Your task to perform on an android device: Search for vegetarian restaurants on Maps Image 0: 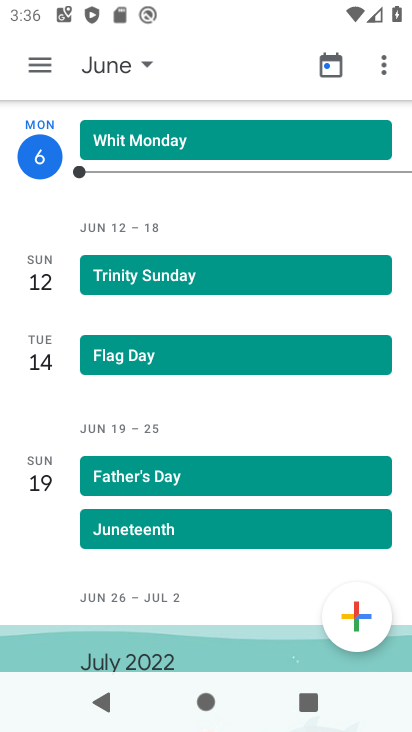
Step 0: press home button
Your task to perform on an android device: Search for vegetarian restaurants on Maps Image 1: 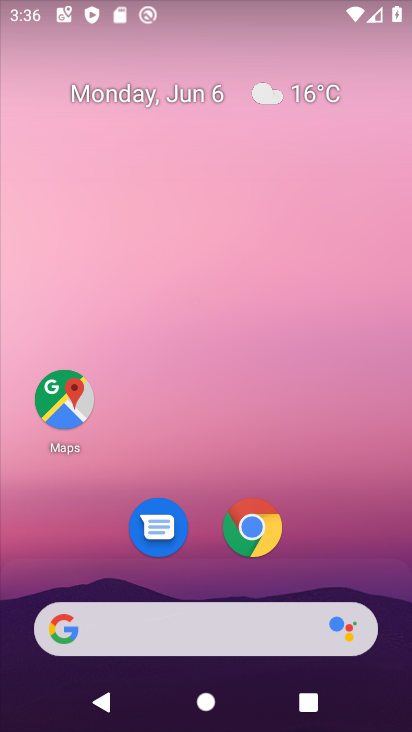
Step 1: click (45, 410)
Your task to perform on an android device: Search for vegetarian restaurants on Maps Image 2: 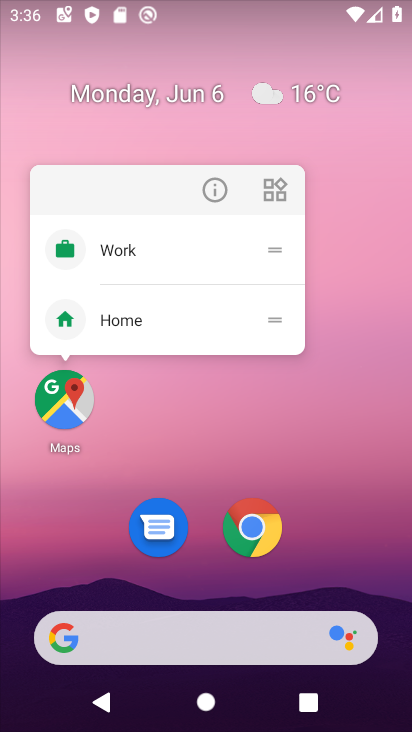
Step 2: click (48, 410)
Your task to perform on an android device: Search for vegetarian restaurants on Maps Image 3: 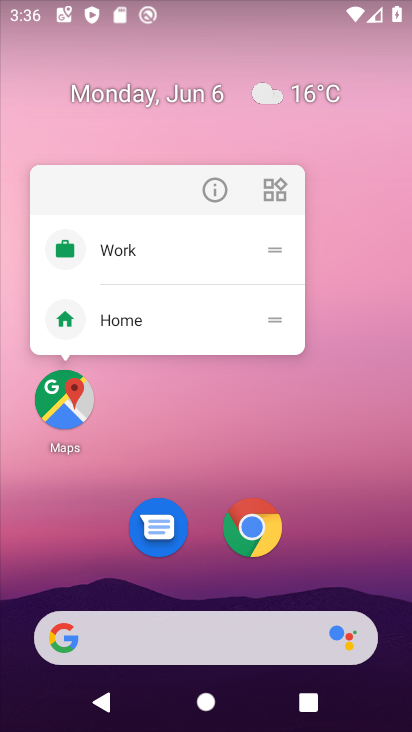
Step 3: click (57, 418)
Your task to perform on an android device: Search for vegetarian restaurants on Maps Image 4: 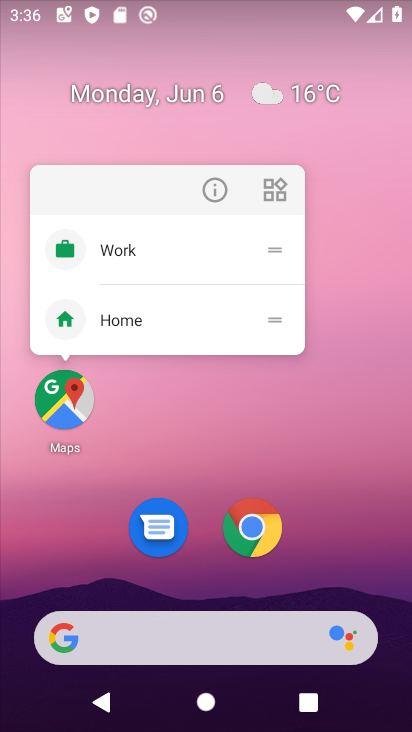
Step 4: click (65, 413)
Your task to perform on an android device: Search for vegetarian restaurants on Maps Image 5: 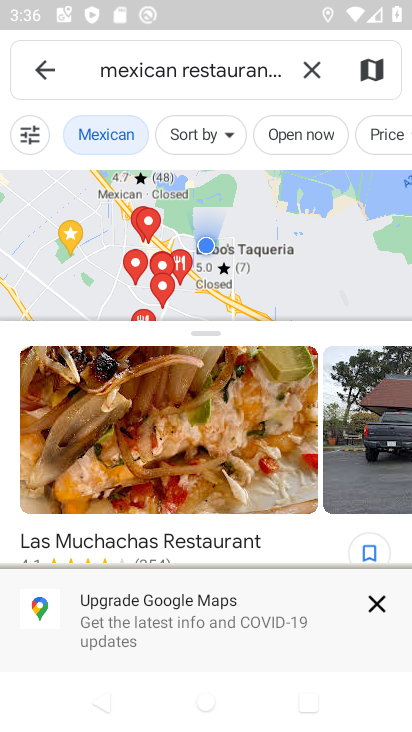
Step 5: click (316, 75)
Your task to perform on an android device: Search for vegetarian restaurants on Maps Image 6: 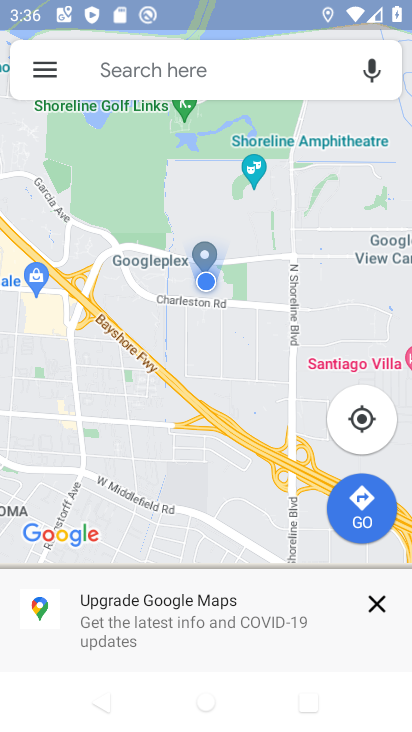
Step 6: click (217, 83)
Your task to perform on an android device: Search for vegetarian restaurants on Maps Image 7: 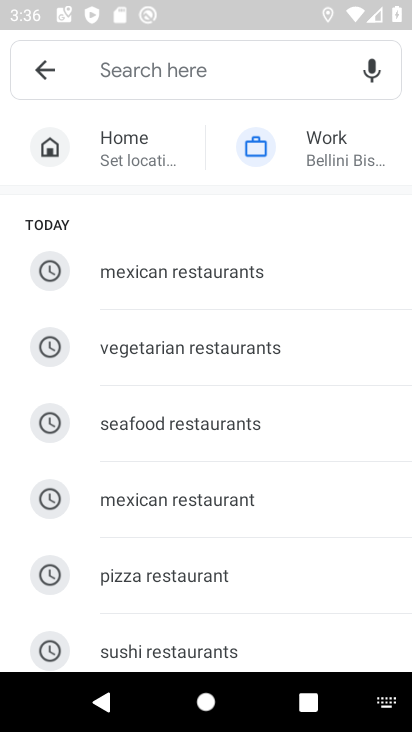
Step 7: type "Vegetarian restaurants"
Your task to perform on an android device: Search for vegetarian restaurants on Maps Image 8: 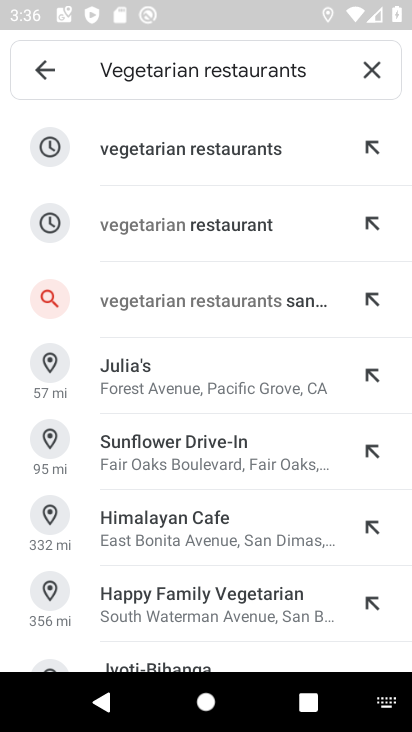
Step 8: click (211, 164)
Your task to perform on an android device: Search for vegetarian restaurants on Maps Image 9: 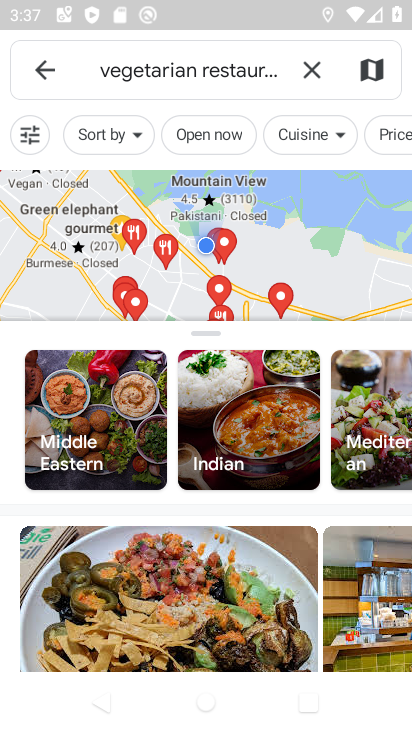
Step 9: task complete